Your task to perform on an android device: See recent photos Image 0: 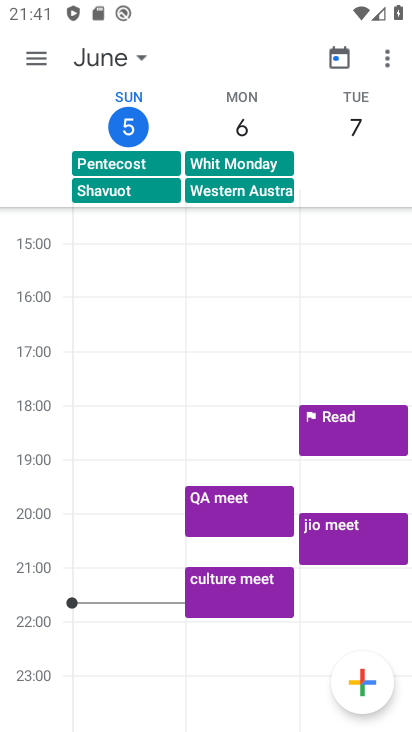
Step 0: press home button
Your task to perform on an android device: See recent photos Image 1: 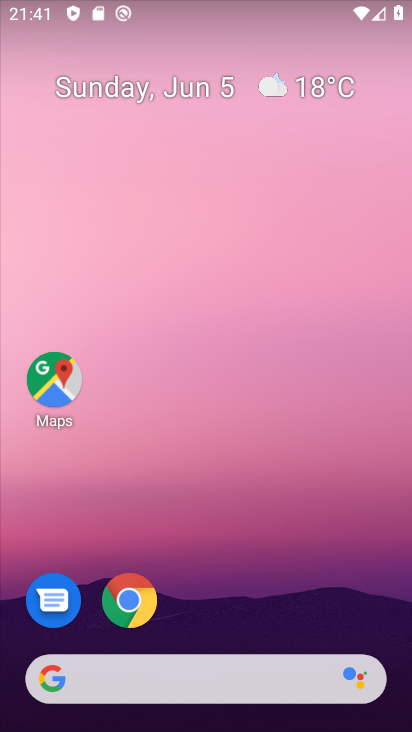
Step 1: drag from (257, 583) to (263, 214)
Your task to perform on an android device: See recent photos Image 2: 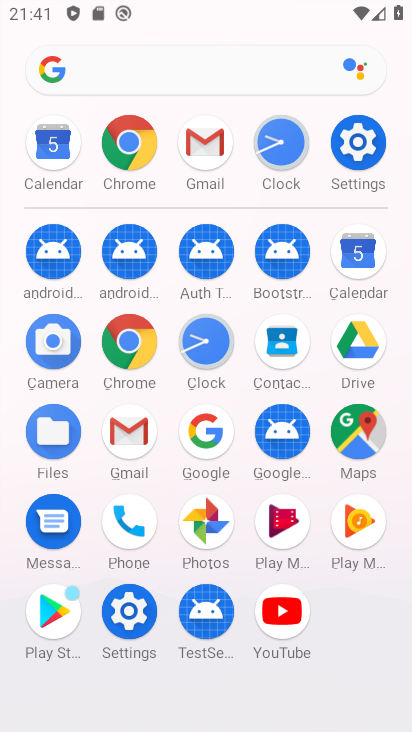
Step 2: click (206, 512)
Your task to perform on an android device: See recent photos Image 3: 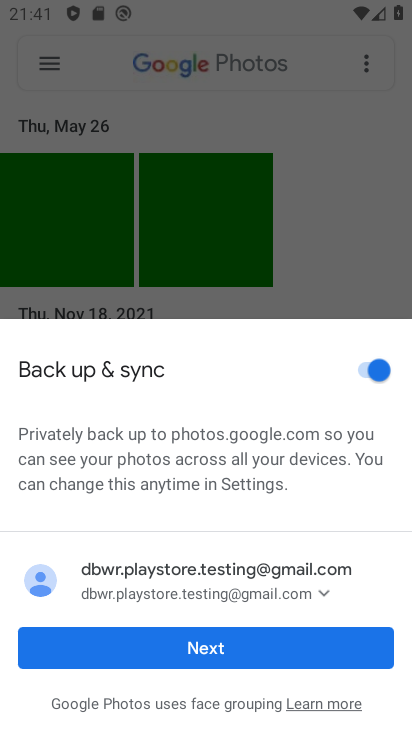
Step 3: click (211, 645)
Your task to perform on an android device: See recent photos Image 4: 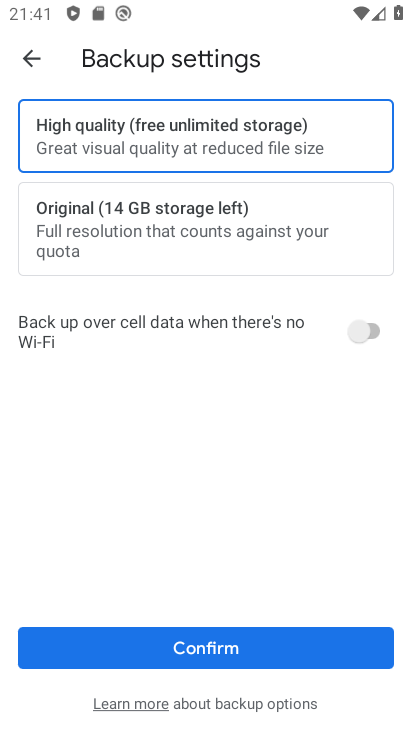
Step 4: click (209, 642)
Your task to perform on an android device: See recent photos Image 5: 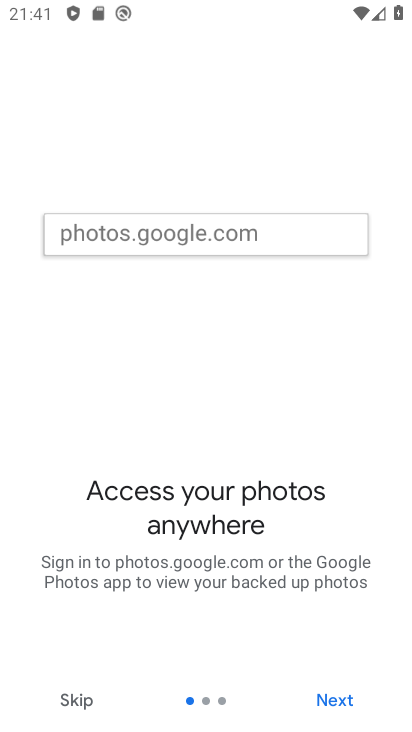
Step 5: click (348, 690)
Your task to perform on an android device: See recent photos Image 6: 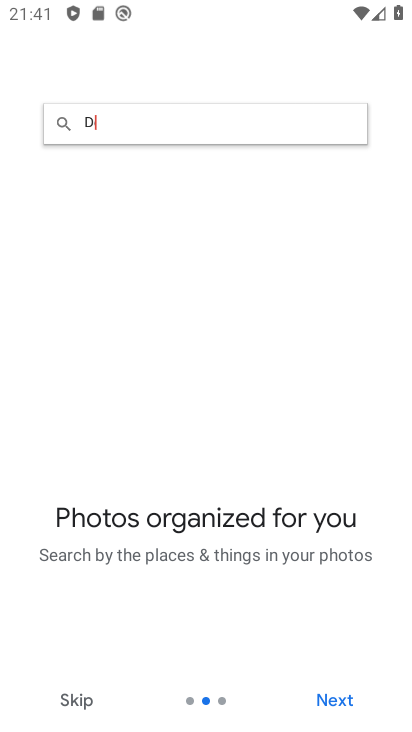
Step 6: click (347, 690)
Your task to perform on an android device: See recent photos Image 7: 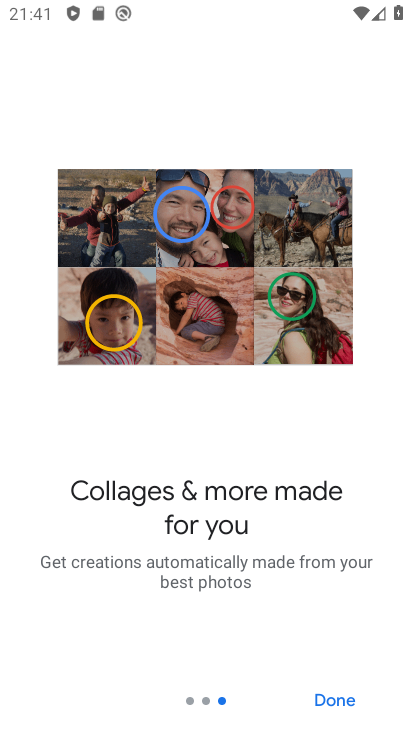
Step 7: click (338, 688)
Your task to perform on an android device: See recent photos Image 8: 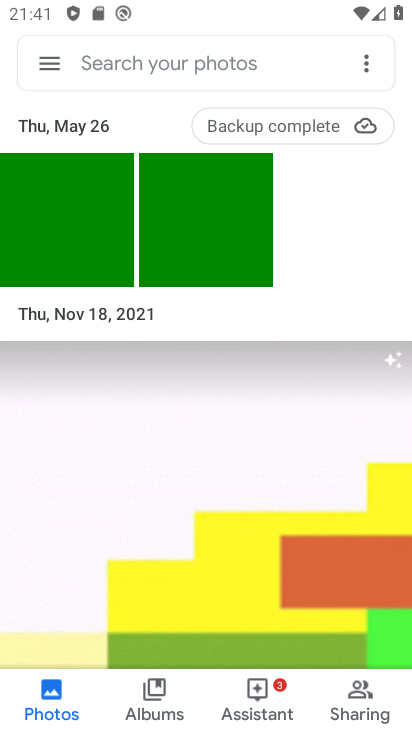
Step 8: click (40, 52)
Your task to perform on an android device: See recent photos Image 9: 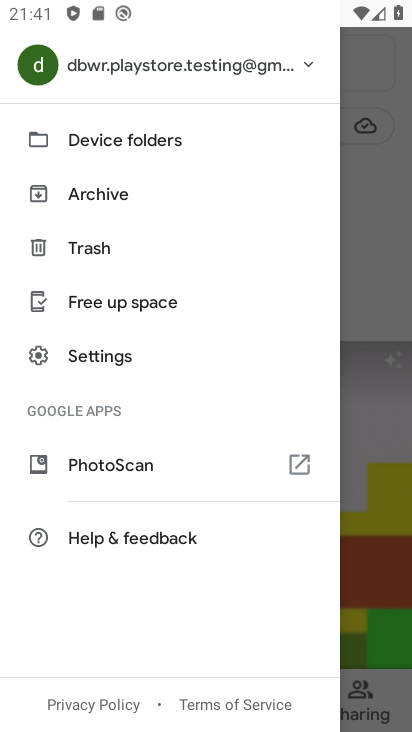
Step 9: click (381, 226)
Your task to perform on an android device: See recent photos Image 10: 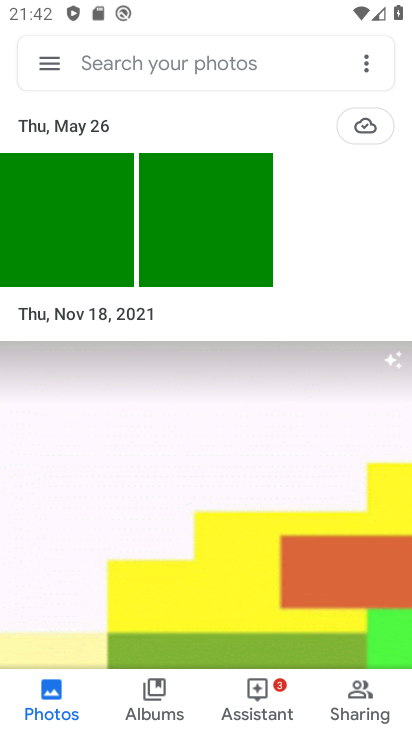
Step 10: task complete